Your task to perform on an android device: manage bookmarks in the chrome app Image 0: 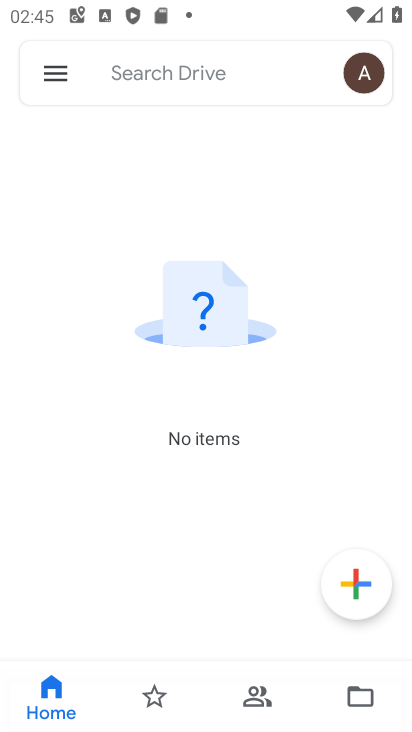
Step 0: press home button
Your task to perform on an android device: manage bookmarks in the chrome app Image 1: 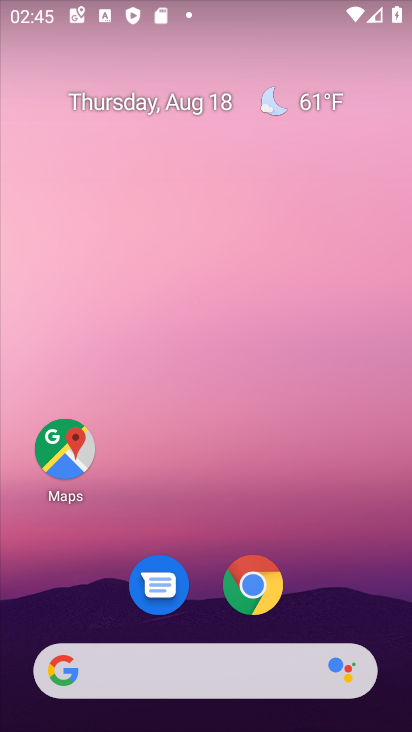
Step 1: drag from (194, 517) to (228, 187)
Your task to perform on an android device: manage bookmarks in the chrome app Image 2: 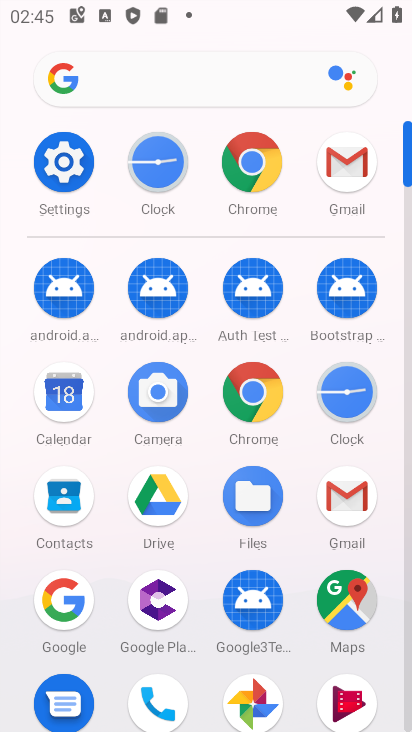
Step 2: click (258, 162)
Your task to perform on an android device: manage bookmarks in the chrome app Image 3: 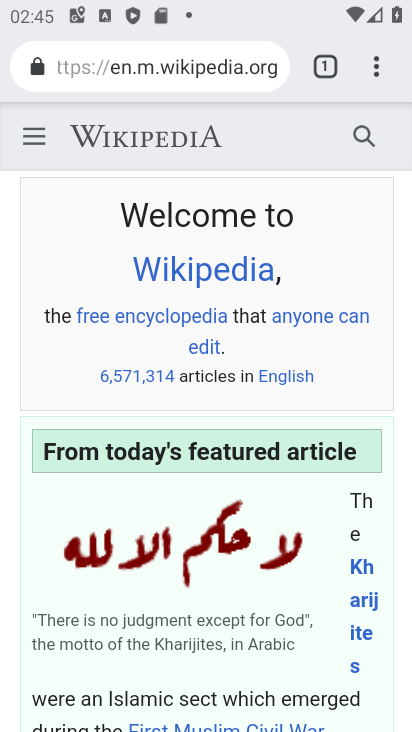
Step 3: click (377, 76)
Your task to perform on an android device: manage bookmarks in the chrome app Image 4: 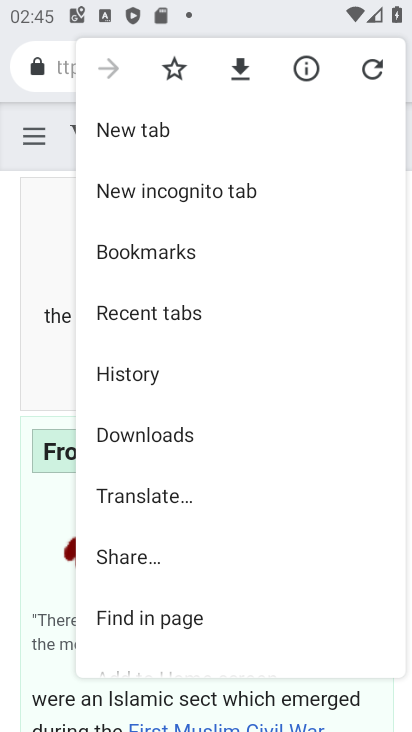
Step 4: click (193, 254)
Your task to perform on an android device: manage bookmarks in the chrome app Image 5: 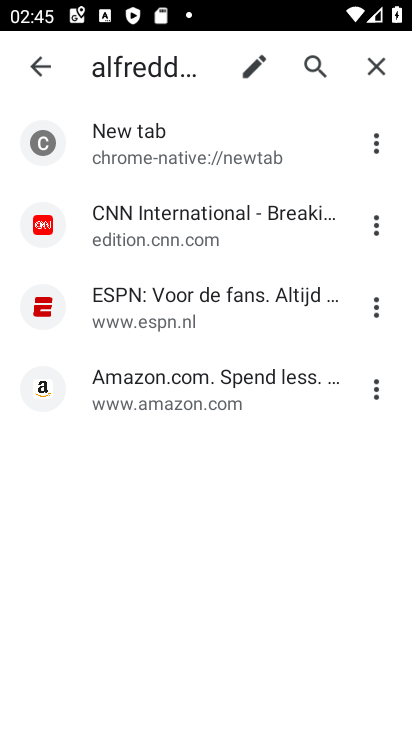
Step 5: click (375, 220)
Your task to perform on an android device: manage bookmarks in the chrome app Image 6: 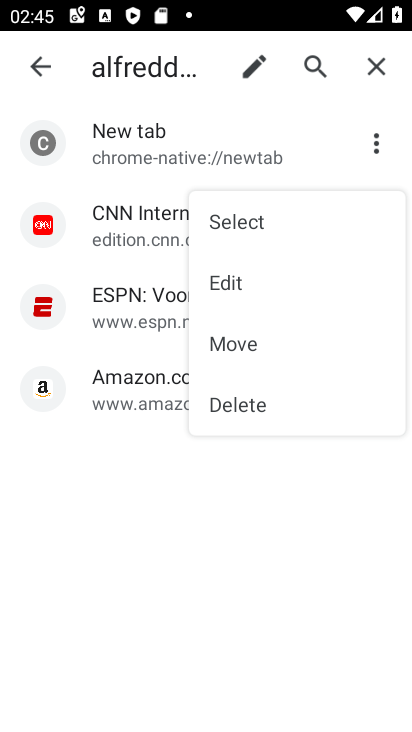
Step 6: click (281, 278)
Your task to perform on an android device: manage bookmarks in the chrome app Image 7: 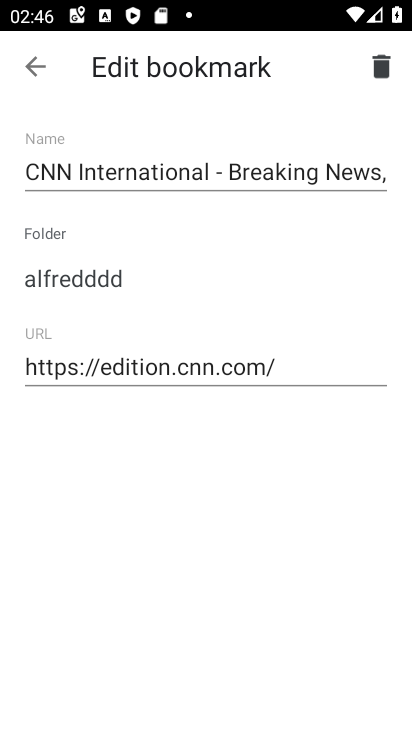
Step 7: task complete